Your task to perform on an android device: Is it going to rain this weekend? Image 0: 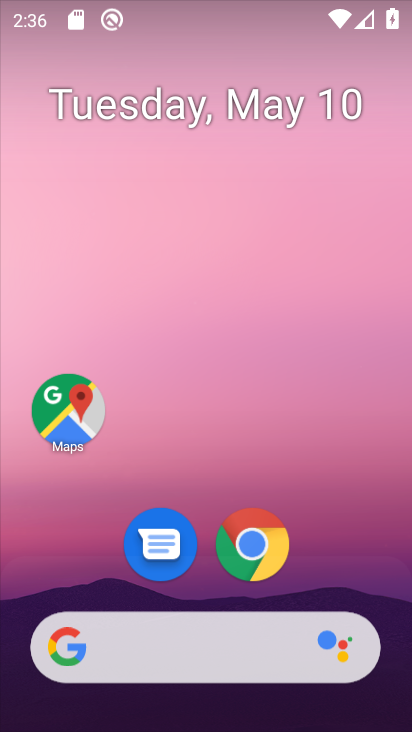
Step 0: drag from (174, 591) to (288, 101)
Your task to perform on an android device: Is it going to rain this weekend? Image 1: 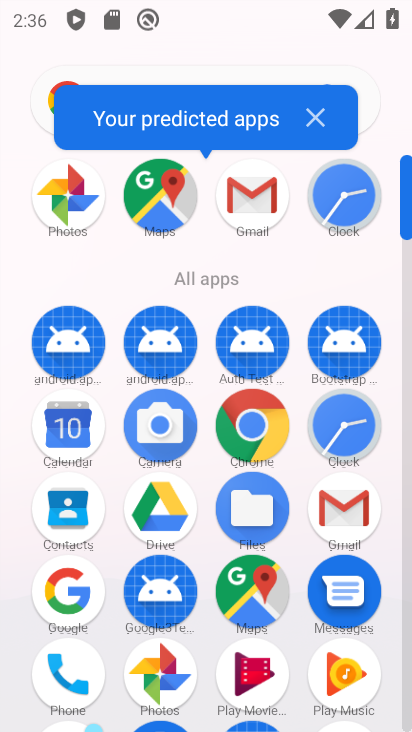
Step 1: click (56, 600)
Your task to perform on an android device: Is it going to rain this weekend? Image 2: 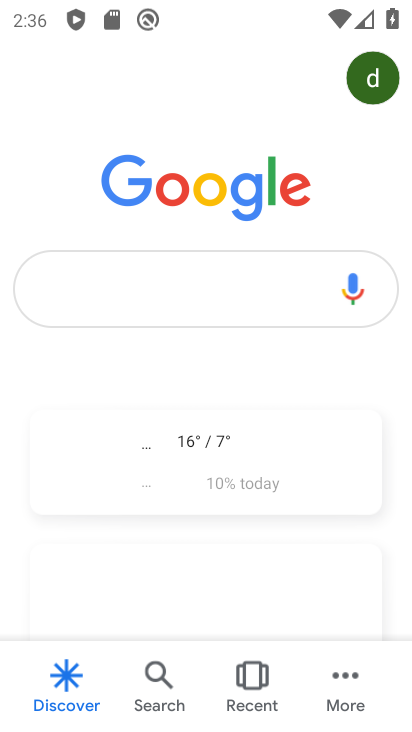
Step 2: click (206, 310)
Your task to perform on an android device: Is it going to rain this weekend? Image 3: 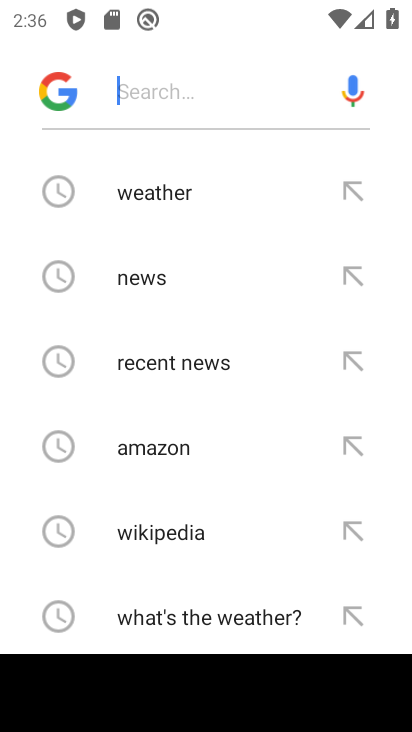
Step 3: click (192, 196)
Your task to perform on an android device: Is it going to rain this weekend? Image 4: 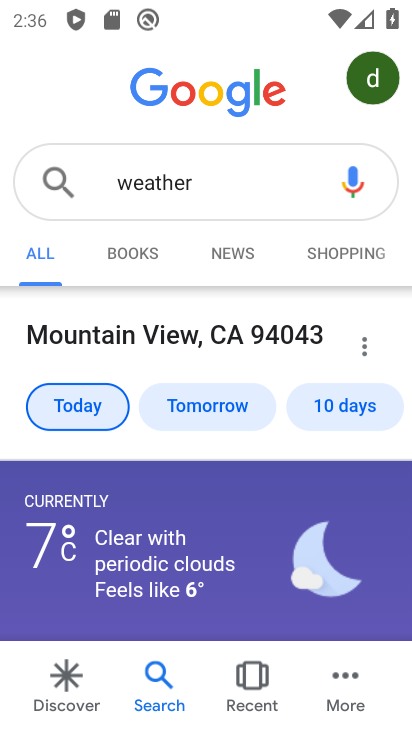
Step 4: click (333, 402)
Your task to perform on an android device: Is it going to rain this weekend? Image 5: 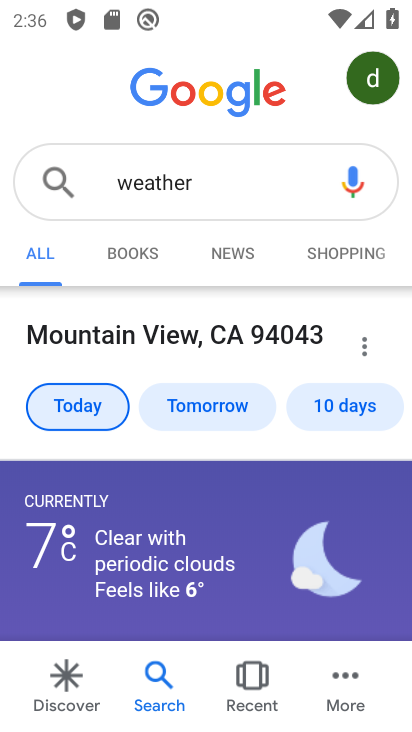
Step 5: click (347, 408)
Your task to perform on an android device: Is it going to rain this weekend? Image 6: 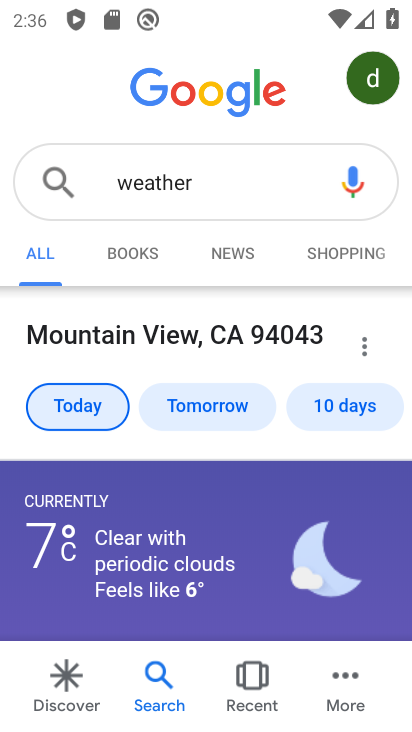
Step 6: click (344, 412)
Your task to perform on an android device: Is it going to rain this weekend? Image 7: 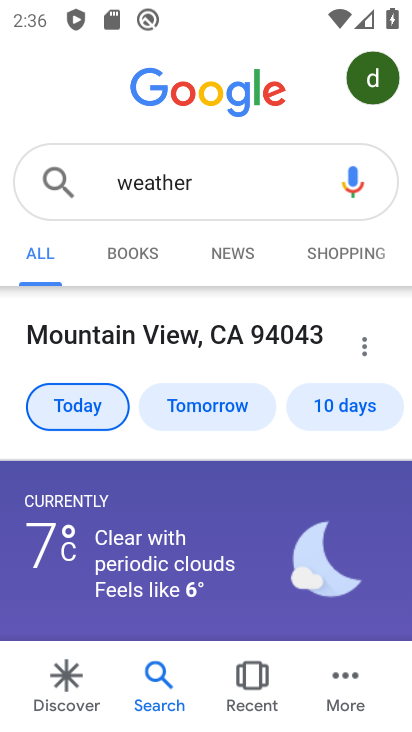
Step 7: drag from (149, 640) to (263, 219)
Your task to perform on an android device: Is it going to rain this weekend? Image 8: 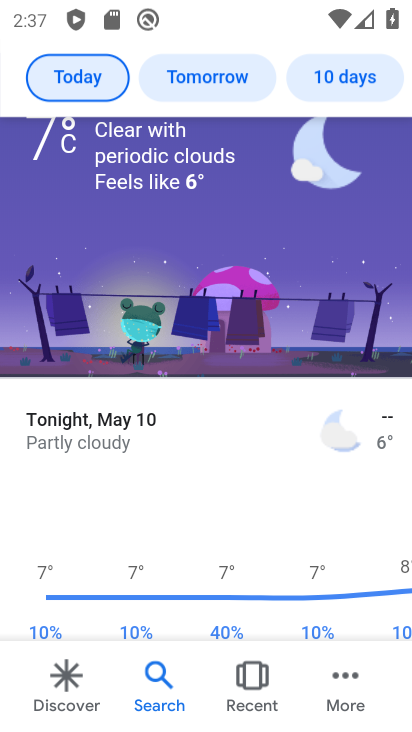
Step 8: drag from (136, 681) to (253, 202)
Your task to perform on an android device: Is it going to rain this weekend? Image 9: 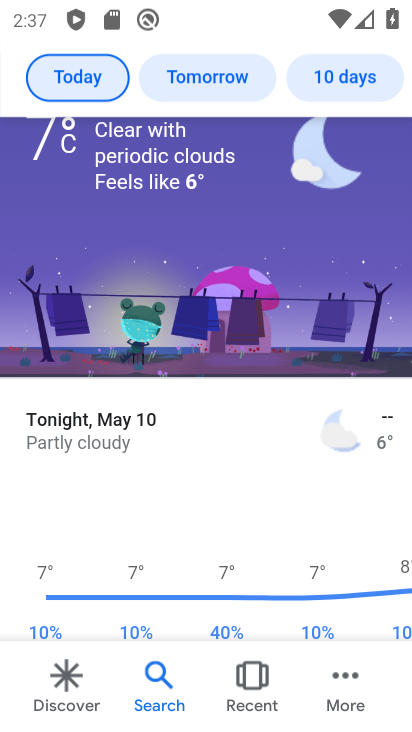
Step 9: drag from (136, 575) to (269, 94)
Your task to perform on an android device: Is it going to rain this weekend? Image 10: 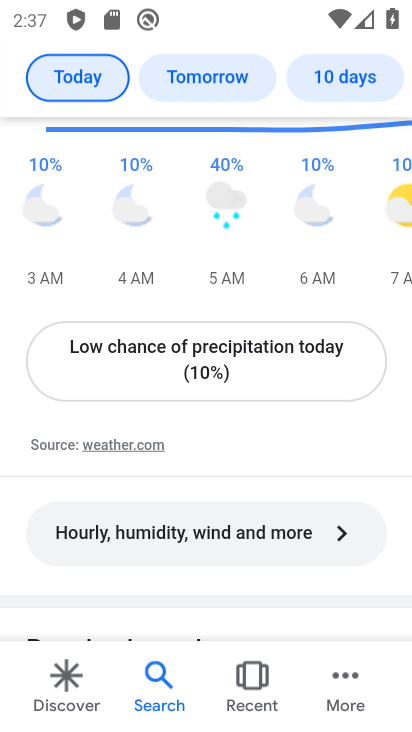
Step 10: drag from (116, 540) to (265, 138)
Your task to perform on an android device: Is it going to rain this weekend? Image 11: 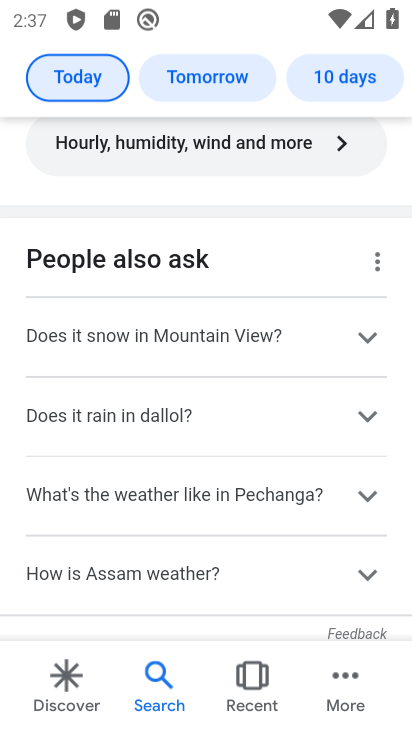
Step 11: drag from (136, 532) to (254, 163)
Your task to perform on an android device: Is it going to rain this weekend? Image 12: 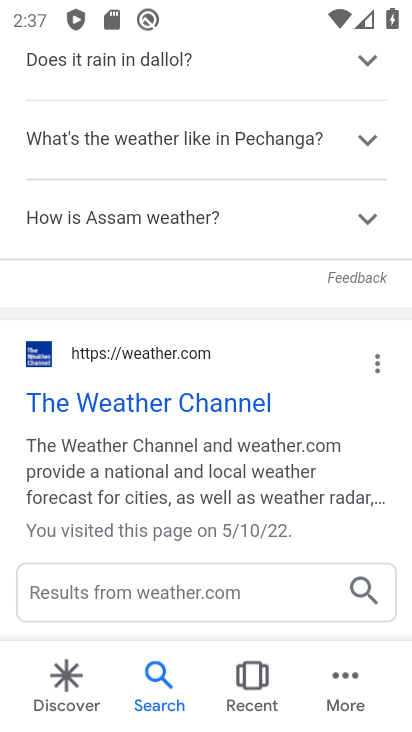
Step 12: click (198, 405)
Your task to perform on an android device: Is it going to rain this weekend? Image 13: 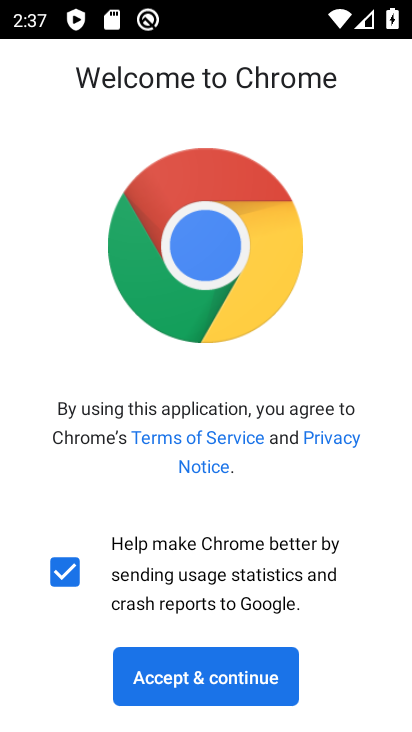
Step 13: click (208, 683)
Your task to perform on an android device: Is it going to rain this weekend? Image 14: 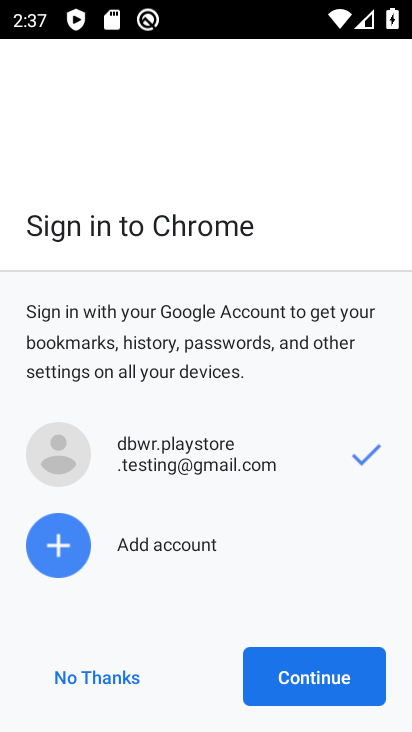
Step 14: click (379, 649)
Your task to perform on an android device: Is it going to rain this weekend? Image 15: 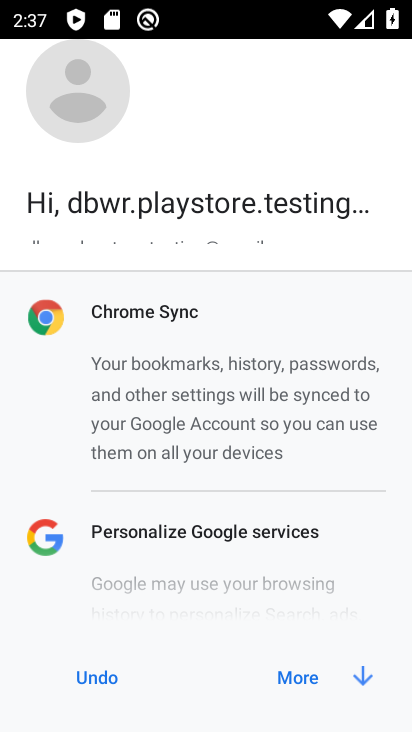
Step 15: click (297, 674)
Your task to perform on an android device: Is it going to rain this weekend? Image 16: 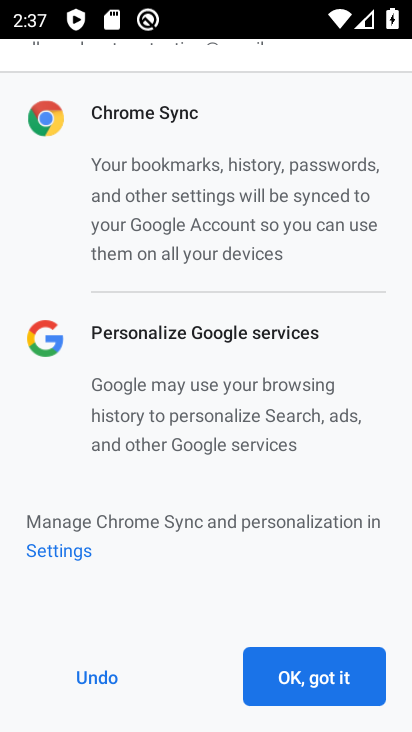
Step 16: click (344, 682)
Your task to perform on an android device: Is it going to rain this weekend? Image 17: 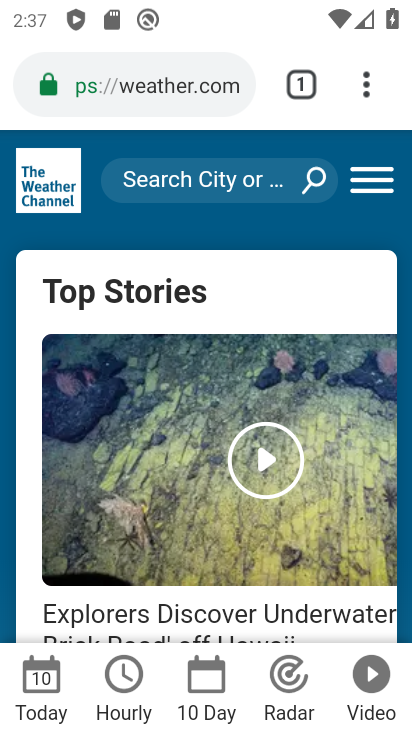
Step 17: click (198, 692)
Your task to perform on an android device: Is it going to rain this weekend? Image 18: 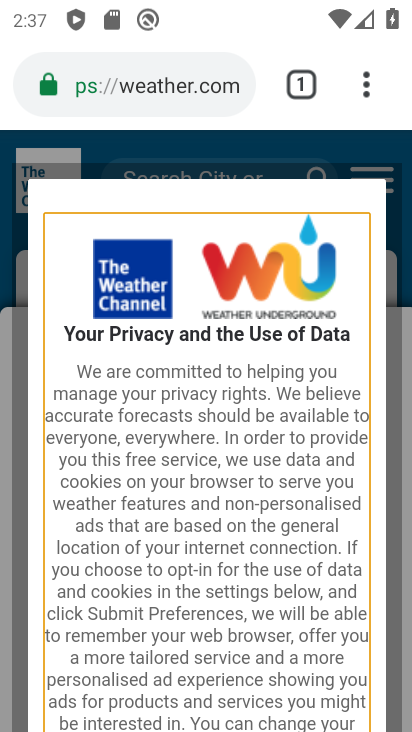
Step 18: drag from (189, 571) to (304, 230)
Your task to perform on an android device: Is it going to rain this weekend? Image 19: 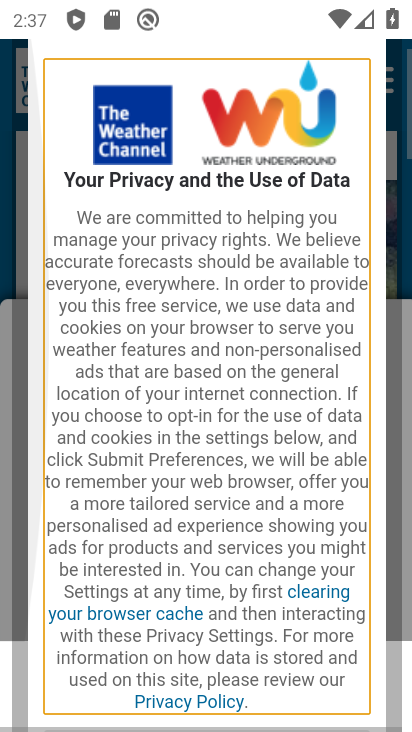
Step 19: drag from (198, 553) to (293, 238)
Your task to perform on an android device: Is it going to rain this weekend? Image 20: 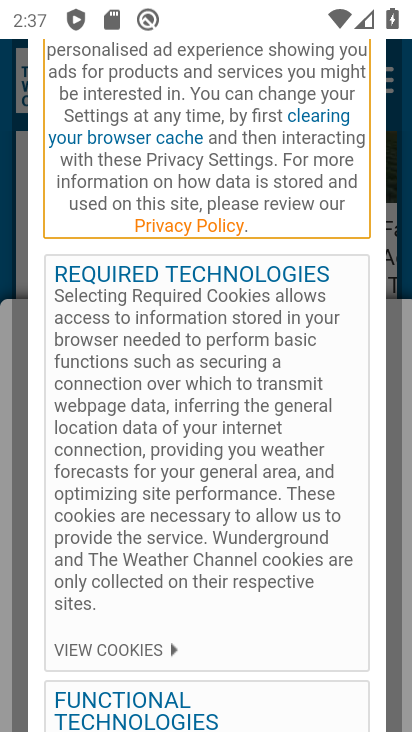
Step 20: drag from (210, 628) to (378, 133)
Your task to perform on an android device: Is it going to rain this weekend? Image 21: 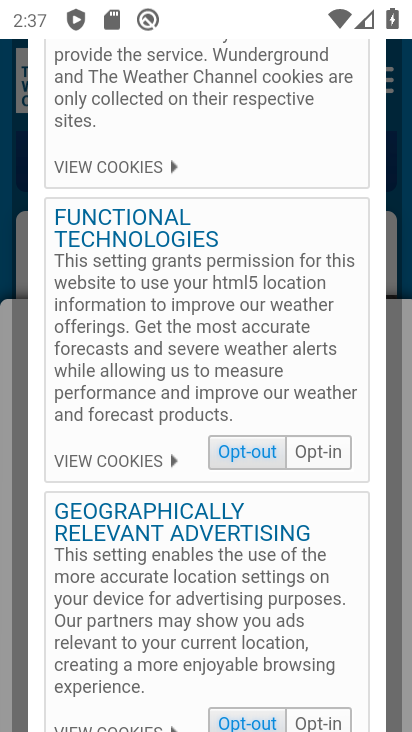
Step 21: drag from (186, 578) to (274, 209)
Your task to perform on an android device: Is it going to rain this weekend? Image 22: 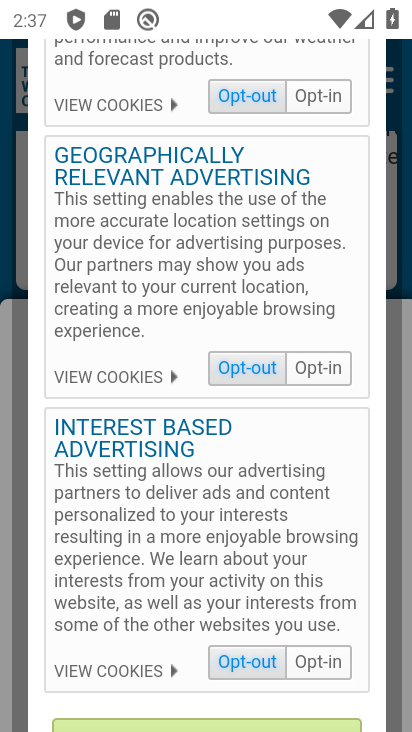
Step 22: click (403, 439)
Your task to perform on an android device: Is it going to rain this weekend? Image 23: 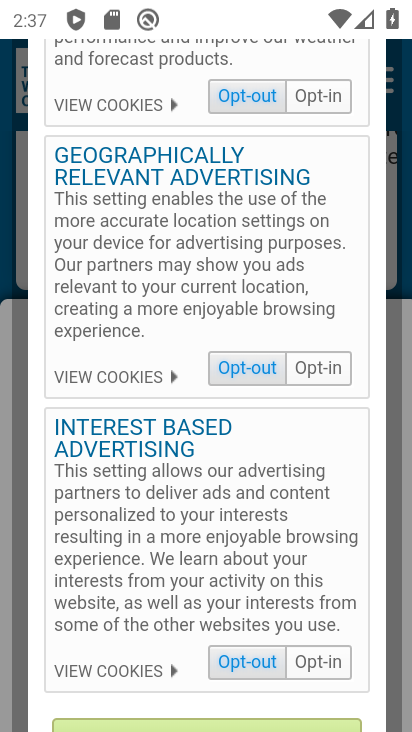
Step 23: drag from (174, 524) to (220, 146)
Your task to perform on an android device: Is it going to rain this weekend? Image 24: 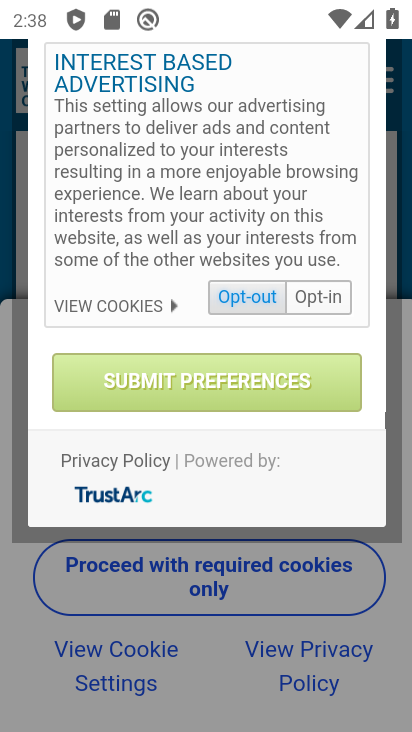
Step 24: click (200, 395)
Your task to perform on an android device: Is it going to rain this weekend? Image 25: 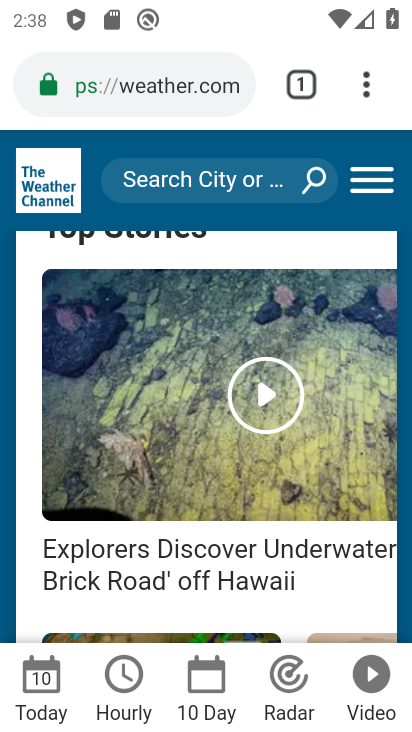
Step 25: click (212, 682)
Your task to perform on an android device: Is it going to rain this weekend? Image 26: 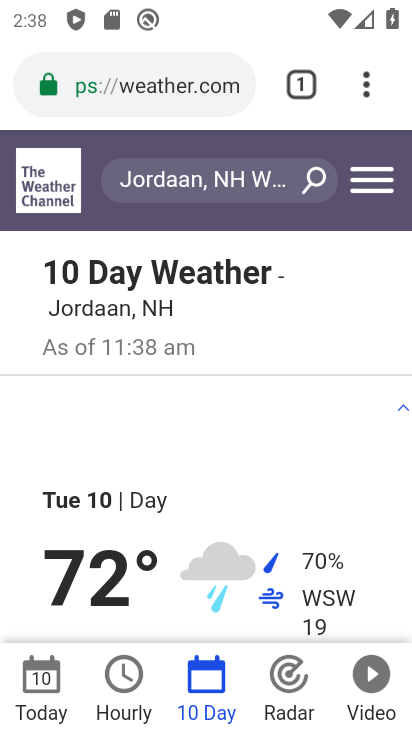
Step 26: task complete